Your task to perform on an android device: Search for 35 best books of all time Image 0: 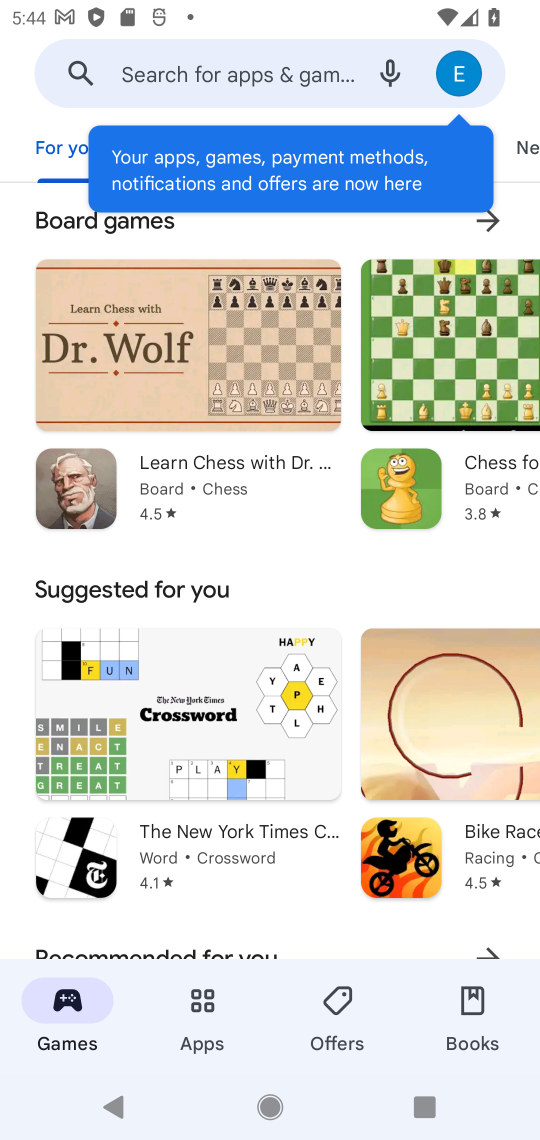
Step 0: press home button
Your task to perform on an android device: Search for 35 best books of all time Image 1: 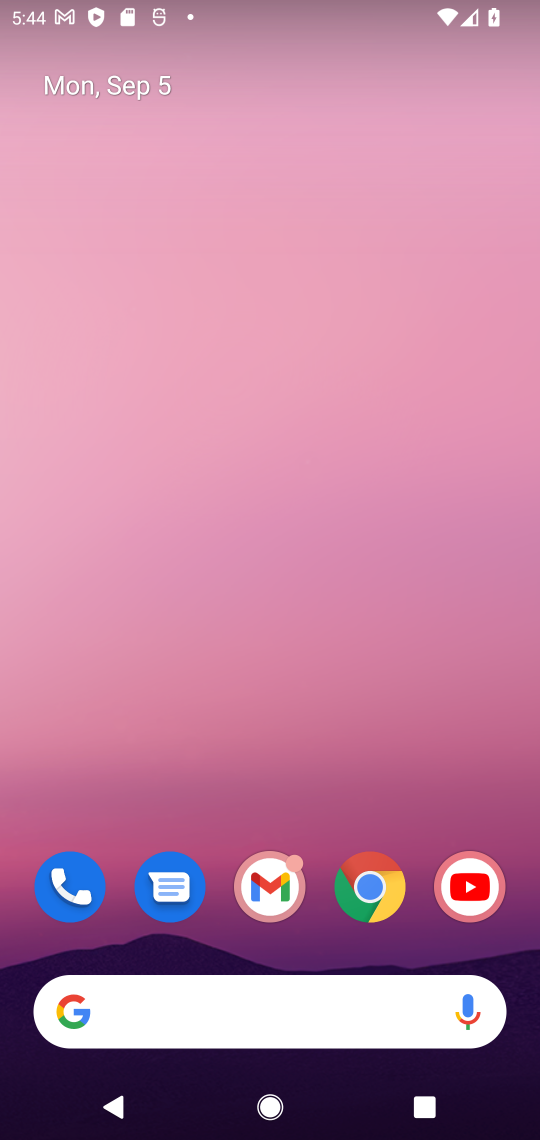
Step 1: drag from (322, 940) to (336, 32)
Your task to perform on an android device: Search for 35 best books of all time Image 2: 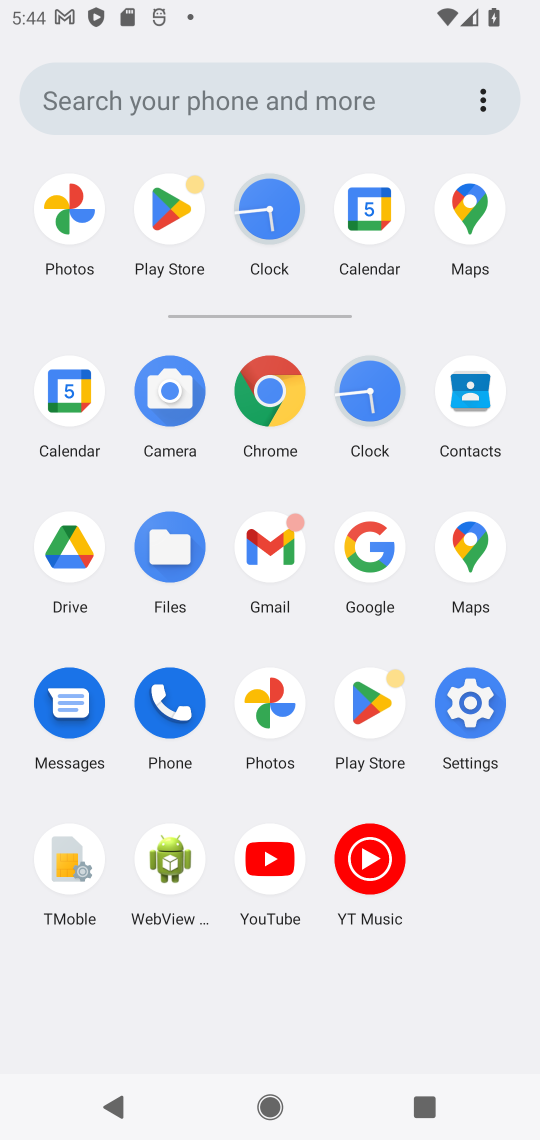
Step 2: click (255, 388)
Your task to perform on an android device: Search for 35 best books of all time Image 3: 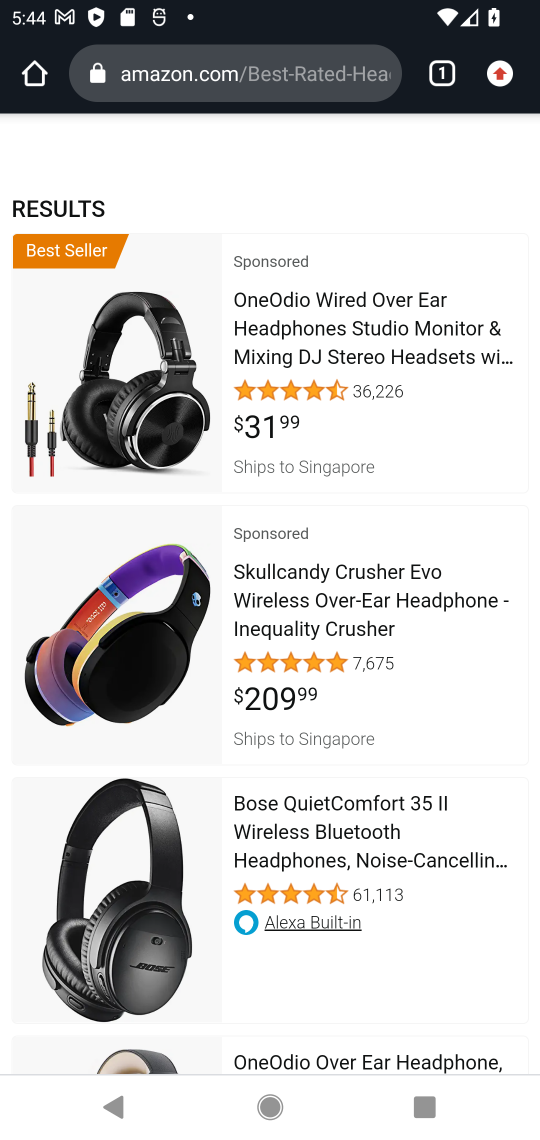
Step 3: click (241, 76)
Your task to perform on an android device: Search for 35 best books of all time Image 4: 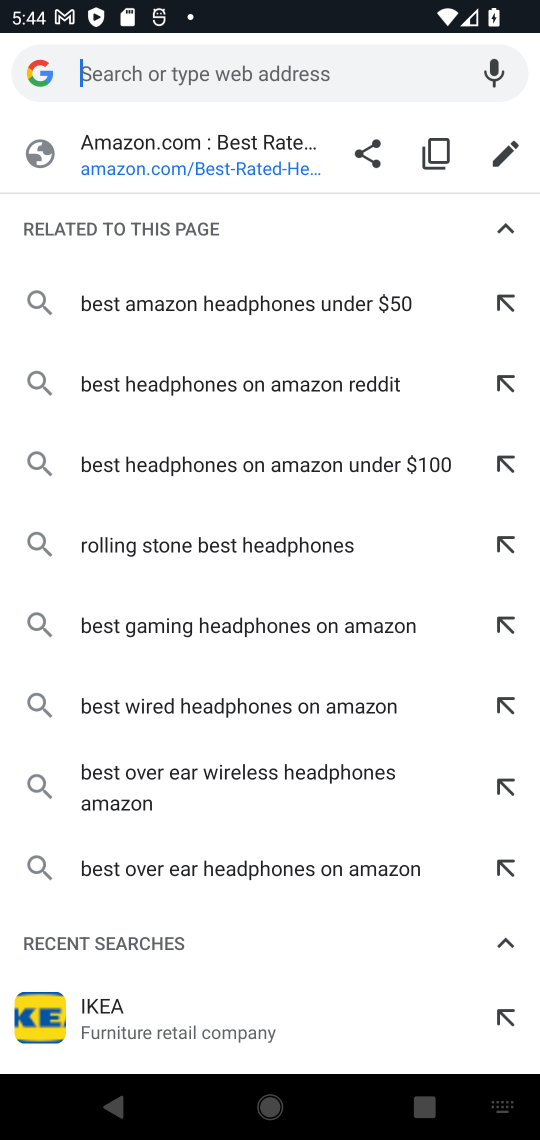
Step 4: type "35 best books of all time"
Your task to perform on an android device: Search for 35 best books of all time Image 5: 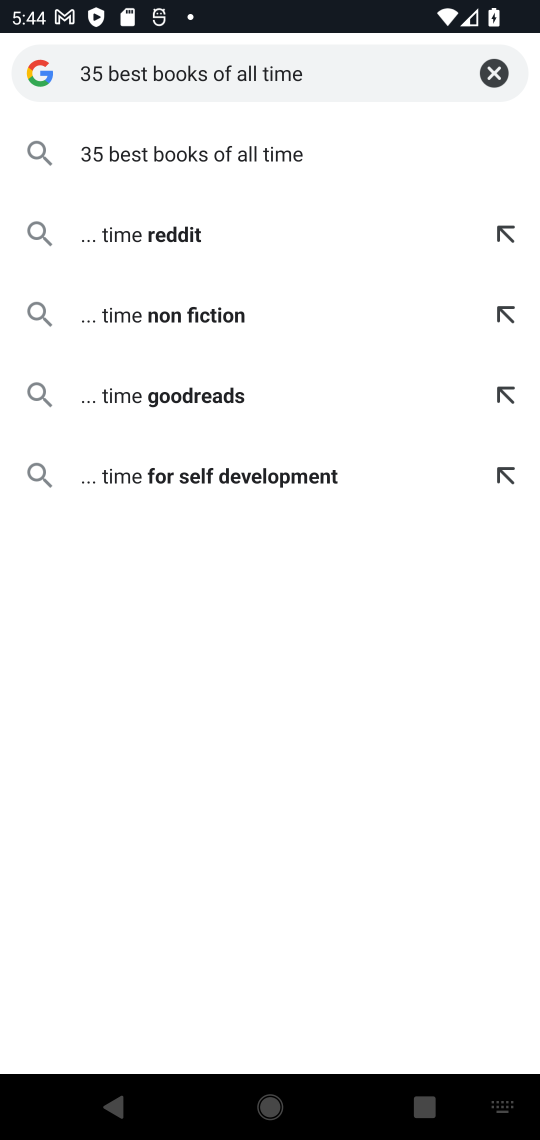
Step 5: press enter
Your task to perform on an android device: Search for 35 best books of all time Image 6: 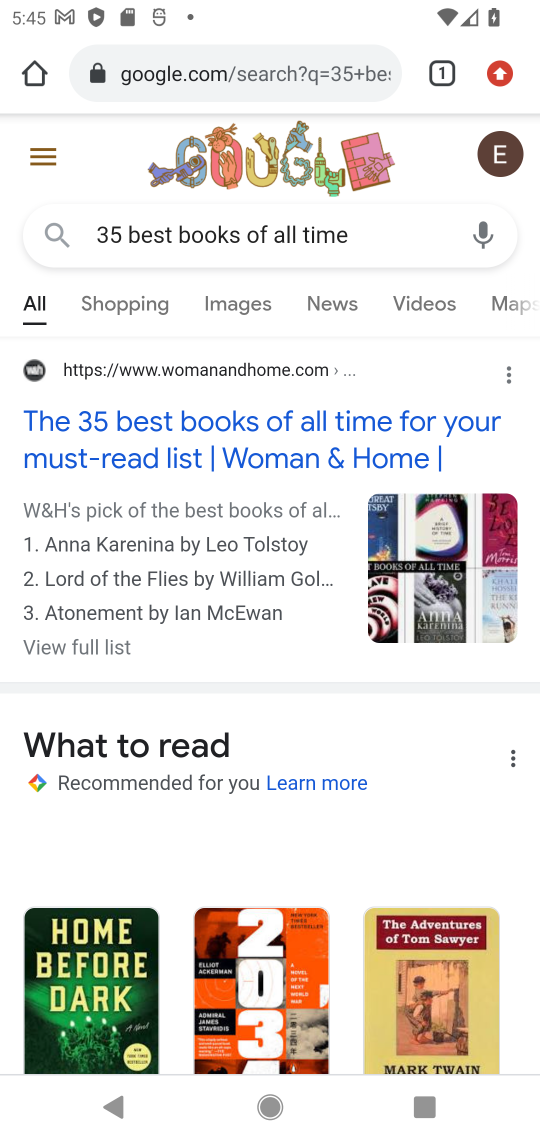
Step 6: click (372, 436)
Your task to perform on an android device: Search for 35 best books of all time Image 7: 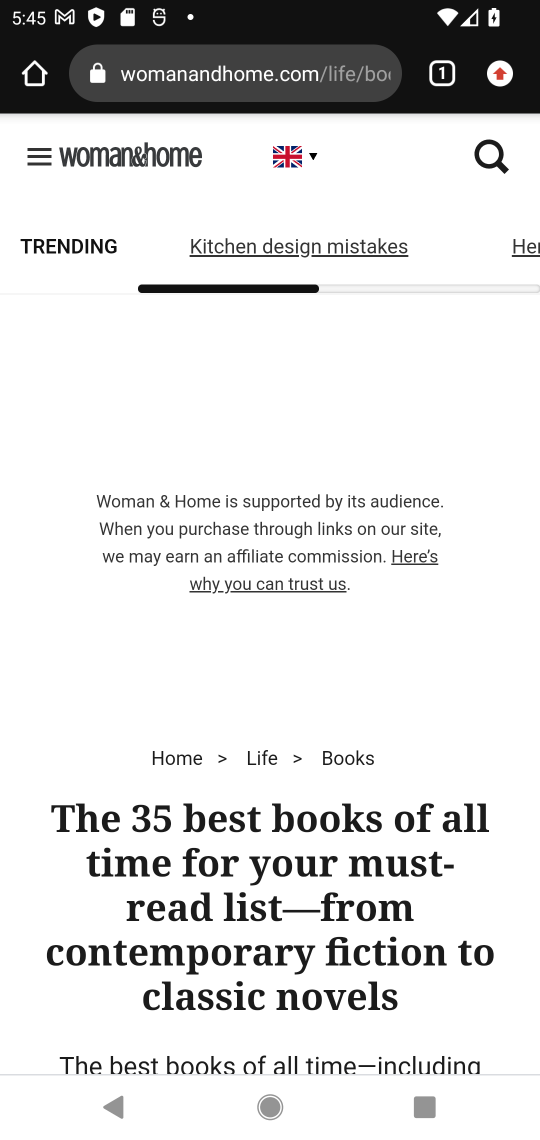
Step 7: task complete